Your task to perform on an android device: snooze an email in the gmail app Image 0: 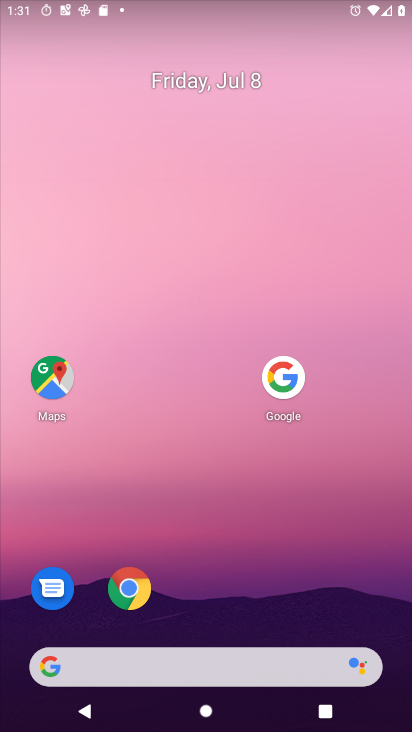
Step 0: drag from (149, 625) to (215, 166)
Your task to perform on an android device: snooze an email in the gmail app Image 1: 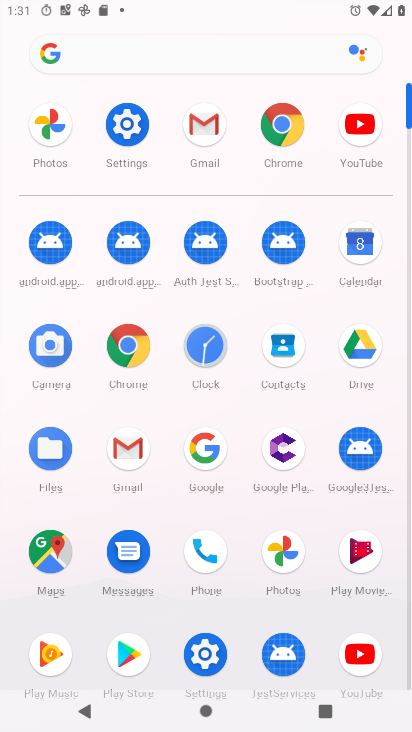
Step 1: click (204, 131)
Your task to perform on an android device: snooze an email in the gmail app Image 2: 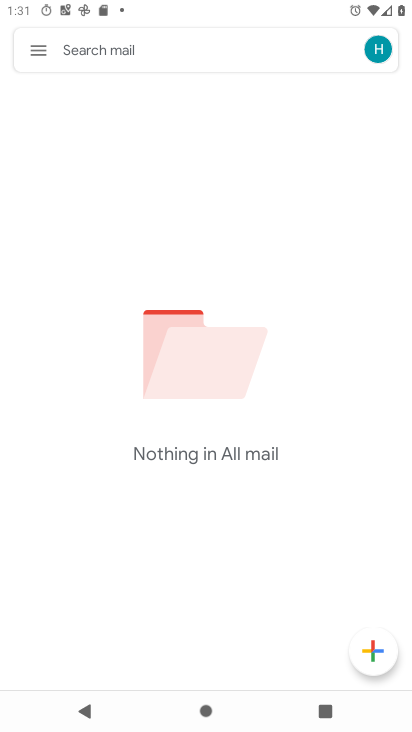
Step 2: task complete